Your task to perform on an android device: toggle show notifications on the lock screen Image 0: 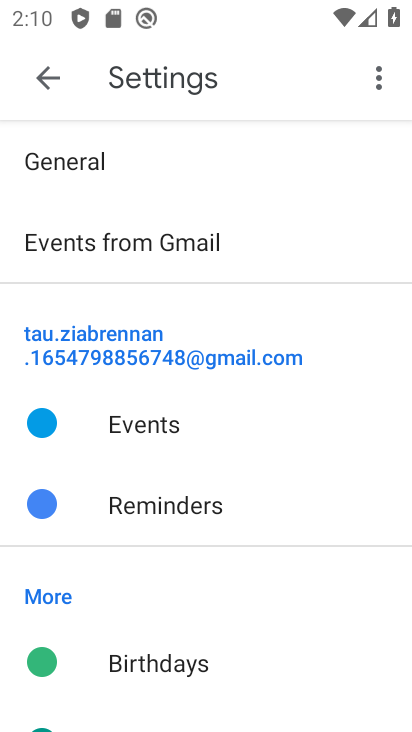
Step 0: press home button
Your task to perform on an android device: toggle show notifications on the lock screen Image 1: 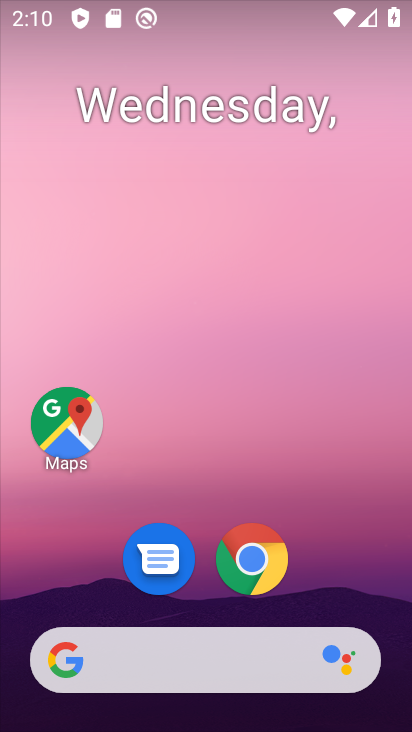
Step 1: drag from (370, 572) to (377, 115)
Your task to perform on an android device: toggle show notifications on the lock screen Image 2: 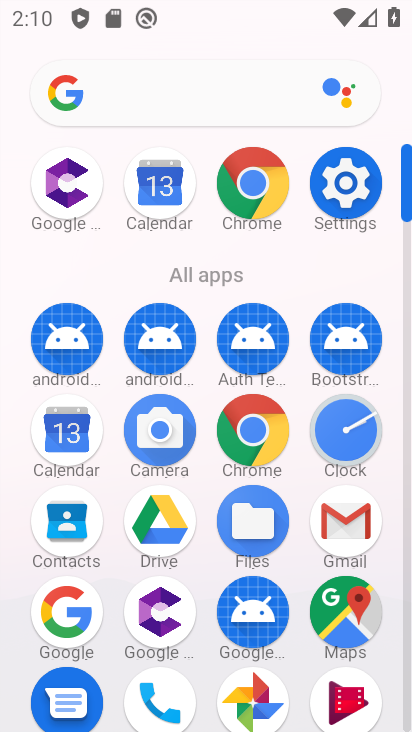
Step 2: click (353, 188)
Your task to perform on an android device: toggle show notifications on the lock screen Image 3: 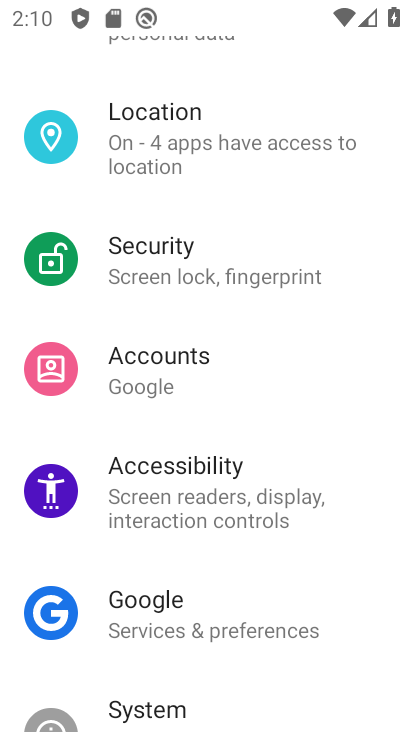
Step 3: drag from (352, 236) to (346, 341)
Your task to perform on an android device: toggle show notifications on the lock screen Image 4: 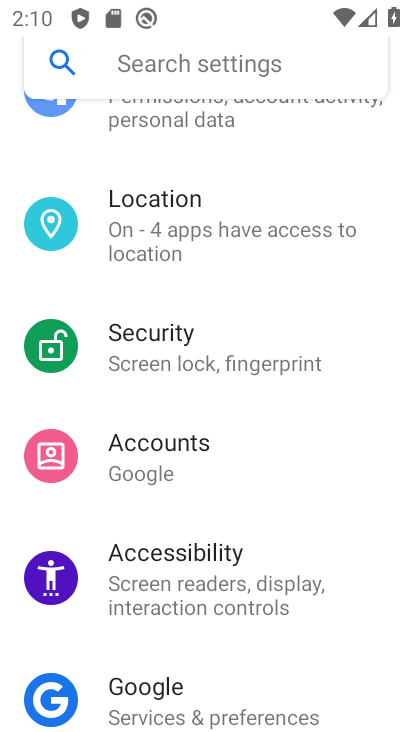
Step 4: drag from (370, 198) to (367, 289)
Your task to perform on an android device: toggle show notifications on the lock screen Image 5: 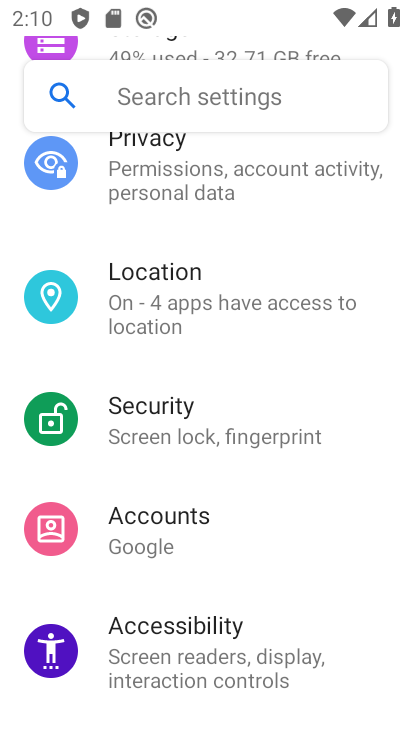
Step 5: drag from (377, 228) to (377, 318)
Your task to perform on an android device: toggle show notifications on the lock screen Image 6: 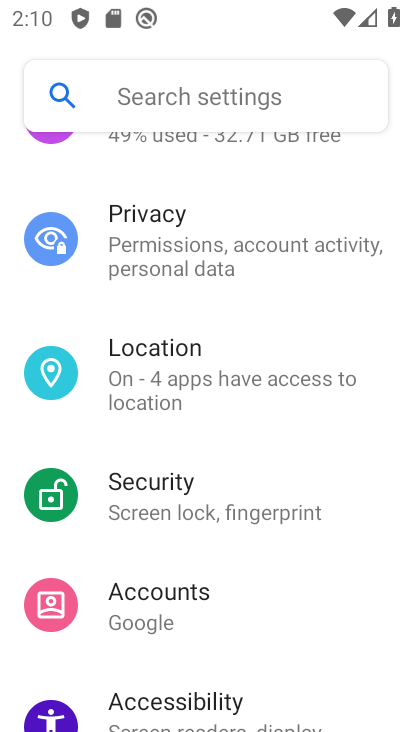
Step 6: drag from (380, 212) to (380, 315)
Your task to perform on an android device: toggle show notifications on the lock screen Image 7: 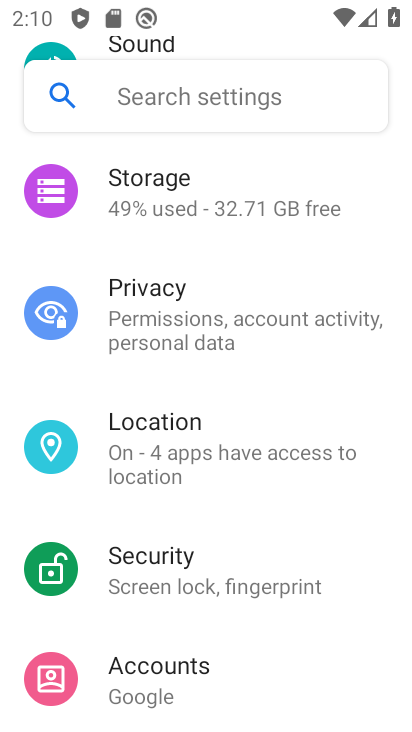
Step 7: drag from (379, 235) to (369, 345)
Your task to perform on an android device: toggle show notifications on the lock screen Image 8: 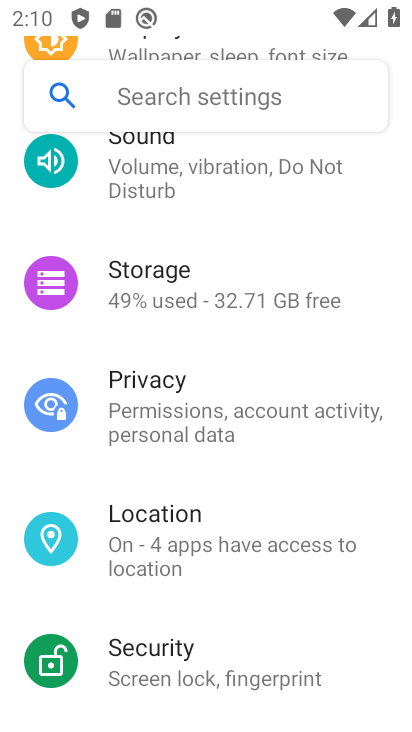
Step 8: drag from (370, 284) to (370, 384)
Your task to perform on an android device: toggle show notifications on the lock screen Image 9: 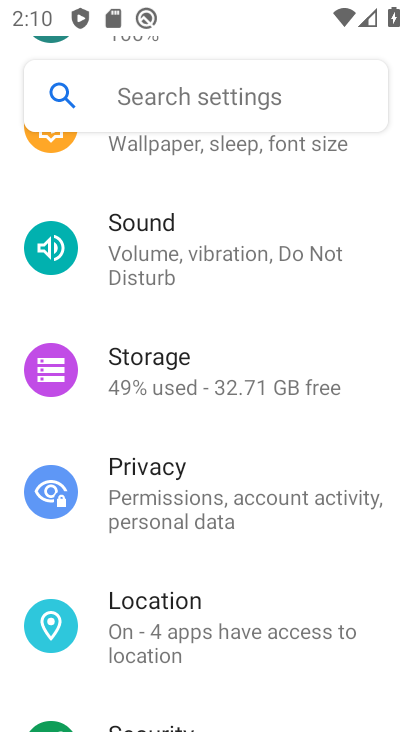
Step 9: drag from (374, 309) to (364, 402)
Your task to perform on an android device: toggle show notifications on the lock screen Image 10: 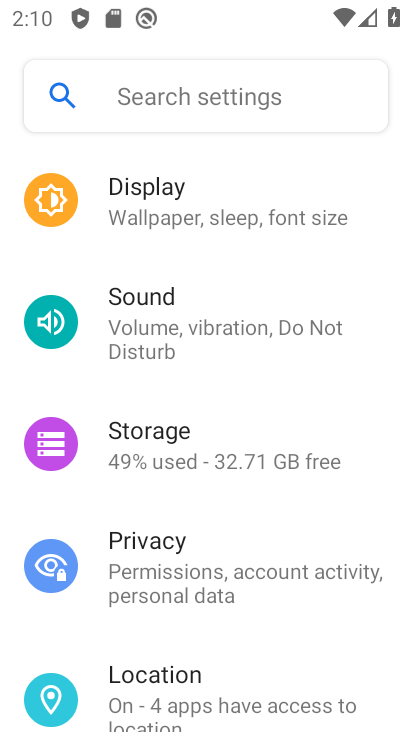
Step 10: drag from (375, 270) to (371, 396)
Your task to perform on an android device: toggle show notifications on the lock screen Image 11: 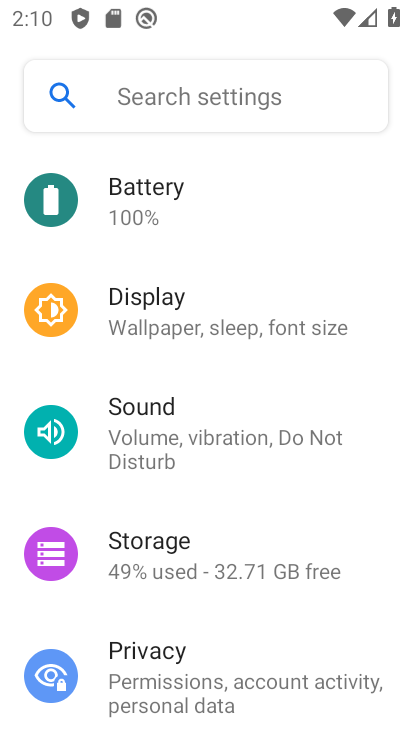
Step 11: drag from (374, 276) to (372, 415)
Your task to perform on an android device: toggle show notifications on the lock screen Image 12: 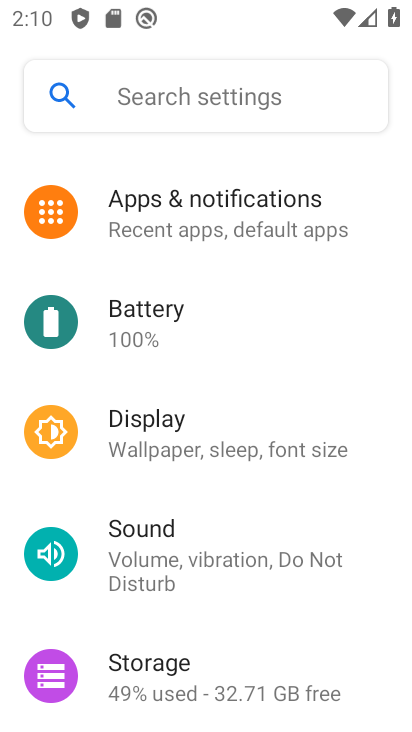
Step 12: drag from (376, 316) to (374, 472)
Your task to perform on an android device: toggle show notifications on the lock screen Image 13: 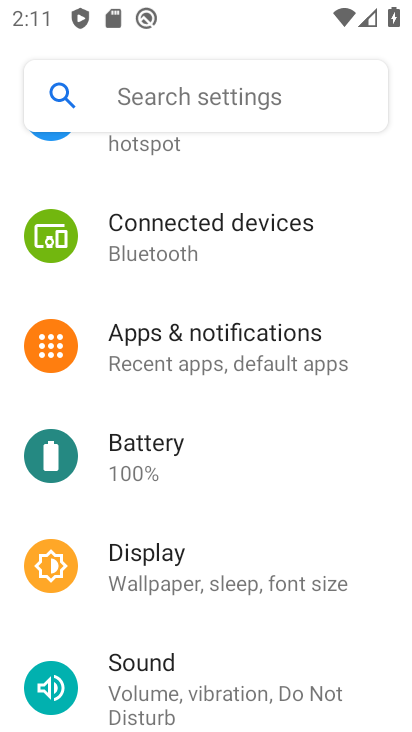
Step 13: drag from (381, 298) to (366, 531)
Your task to perform on an android device: toggle show notifications on the lock screen Image 14: 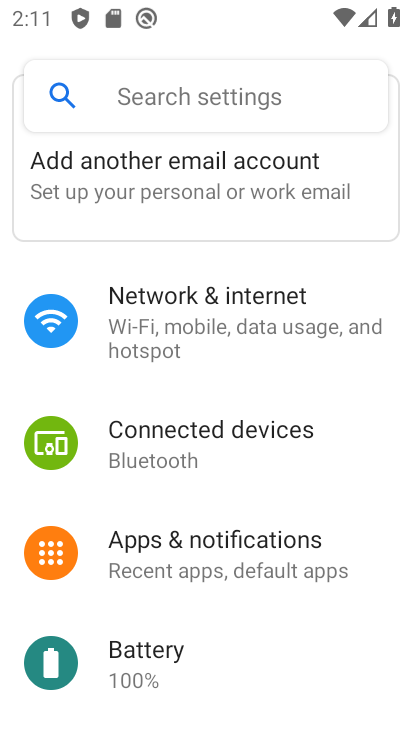
Step 14: click (278, 538)
Your task to perform on an android device: toggle show notifications on the lock screen Image 15: 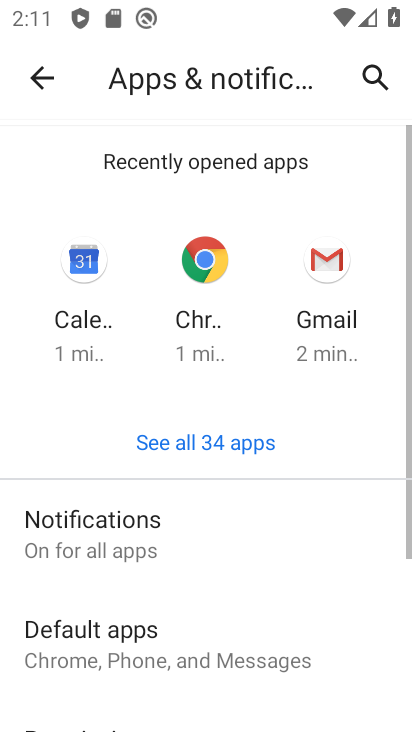
Step 15: drag from (255, 532) to (273, 304)
Your task to perform on an android device: toggle show notifications on the lock screen Image 16: 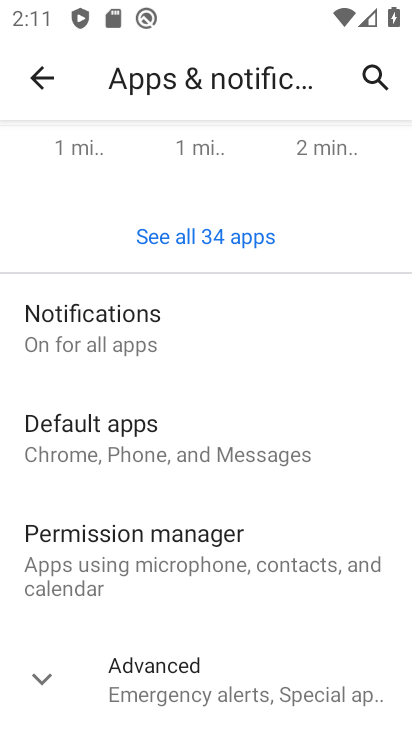
Step 16: click (137, 335)
Your task to perform on an android device: toggle show notifications on the lock screen Image 17: 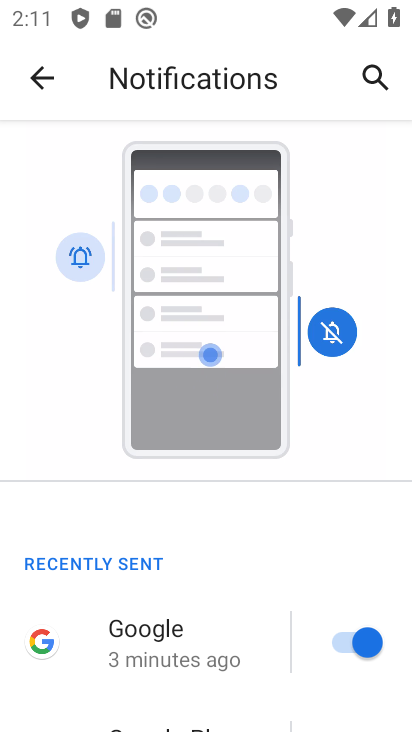
Step 17: drag from (300, 533) to (301, 379)
Your task to perform on an android device: toggle show notifications on the lock screen Image 18: 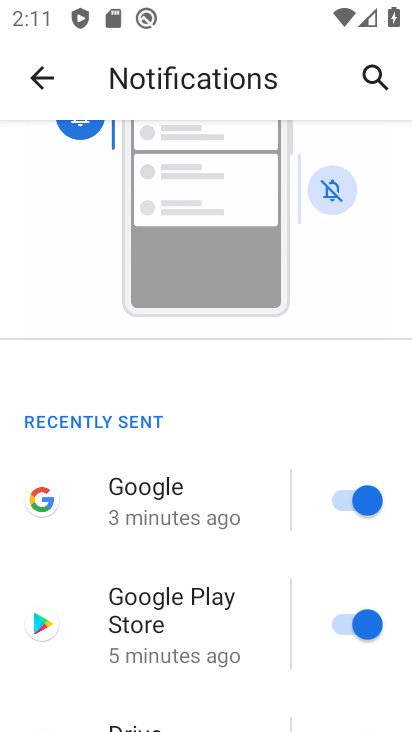
Step 18: drag from (251, 538) to (253, 373)
Your task to perform on an android device: toggle show notifications on the lock screen Image 19: 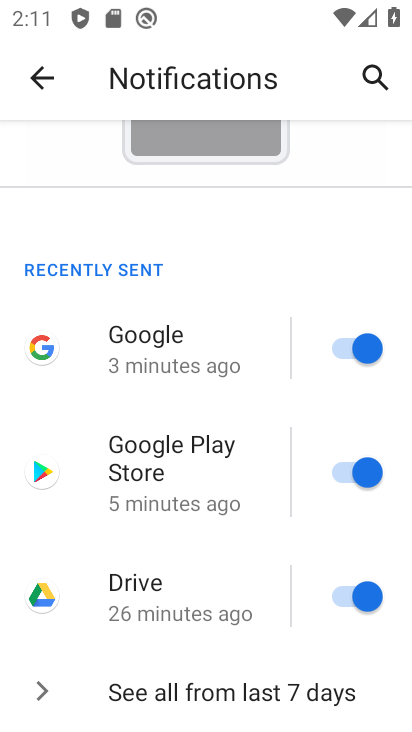
Step 19: drag from (265, 571) to (263, 374)
Your task to perform on an android device: toggle show notifications on the lock screen Image 20: 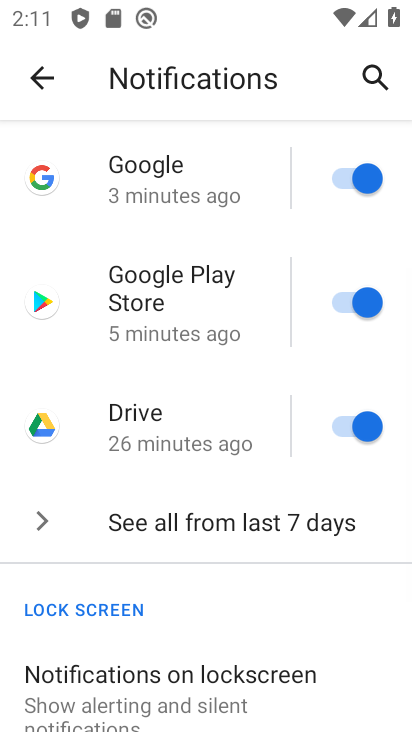
Step 20: drag from (255, 610) to (256, 417)
Your task to perform on an android device: toggle show notifications on the lock screen Image 21: 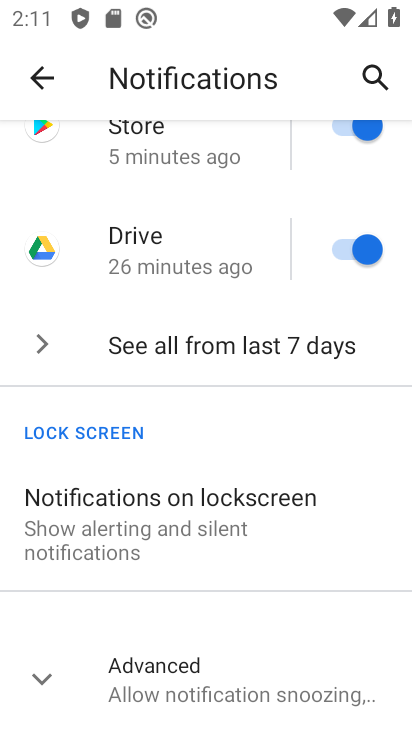
Step 21: click (209, 513)
Your task to perform on an android device: toggle show notifications on the lock screen Image 22: 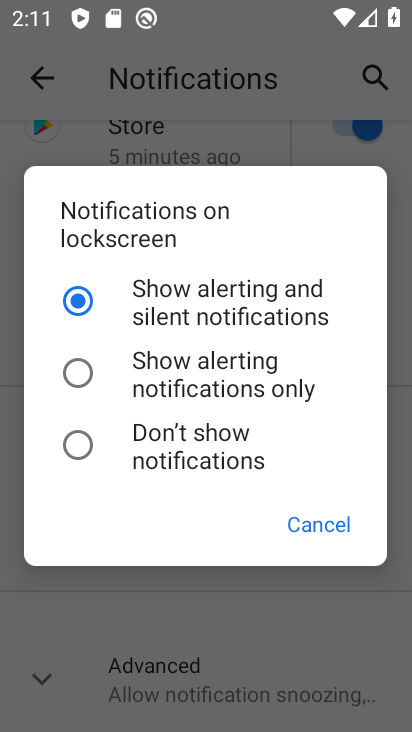
Step 22: click (88, 360)
Your task to perform on an android device: toggle show notifications on the lock screen Image 23: 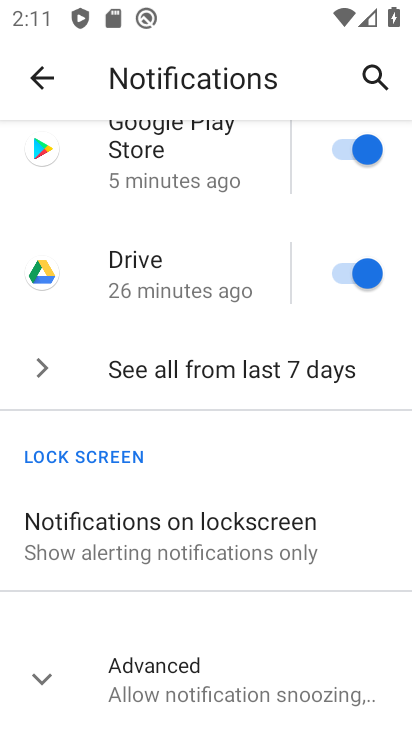
Step 23: task complete